Your task to perform on an android device: Open Chrome and go to the settings page Image 0: 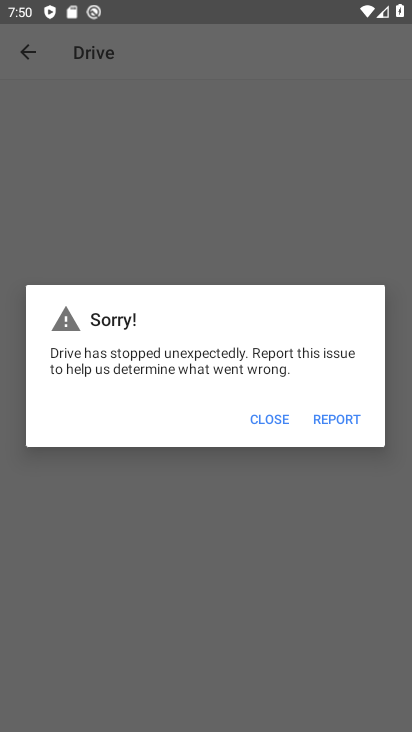
Step 0: press home button
Your task to perform on an android device: Open Chrome and go to the settings page Image 1: 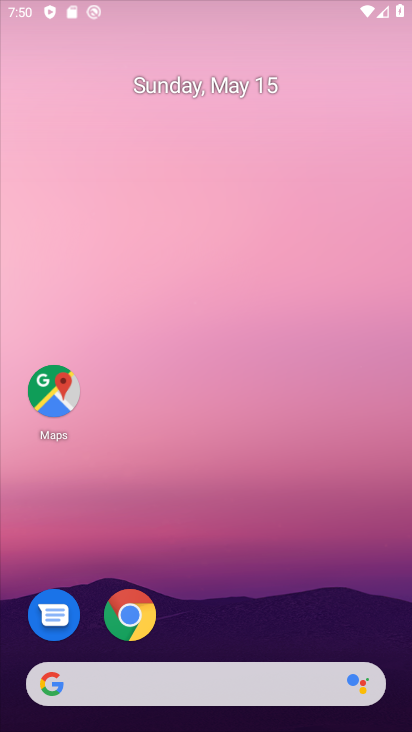
Step 1: drag from (244, 683) to (375, 182)
Your task to perform on an android device: Open Chrome and go to the settings page Image 2: 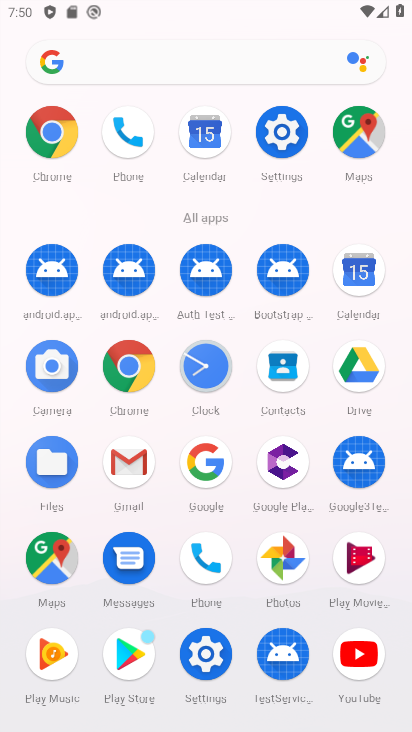
Step 2: click (37, 117)
Your task to perform on an android device: Open Chrome and go to the settings page Image 3: 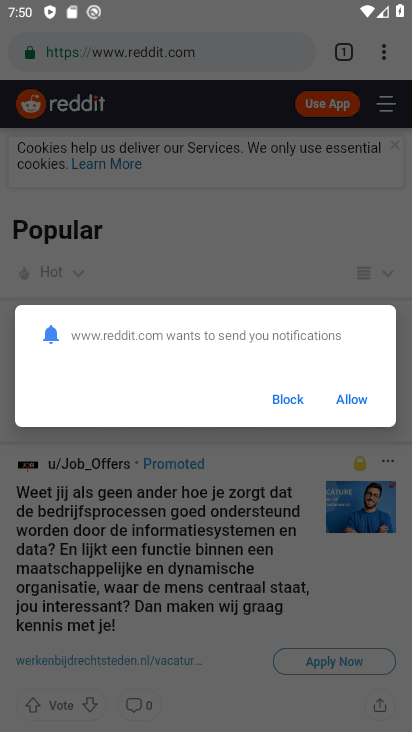
Step 3: click (309, 402)
Your task to perform on an android device: Open Chrome and go to the settings page Image 4: 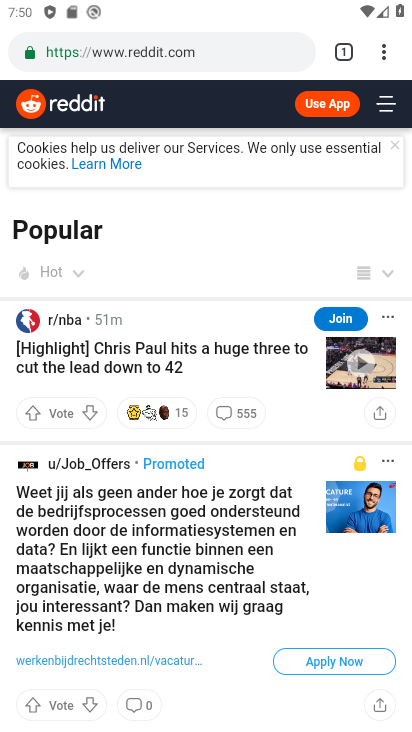
Step 4: click (382, 62)
Your task to perform on an android device: Open Chrome and go to the settings page Image 5: 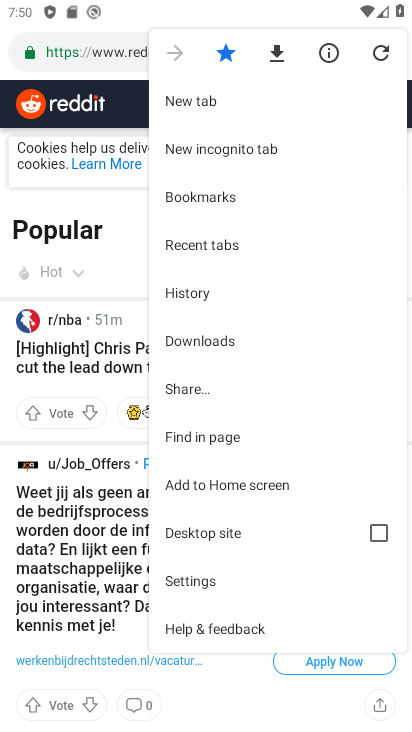
Step 5: click (217, 583)
Your task to perform on an android device: Open Chrome and go to the settings page Image 6: 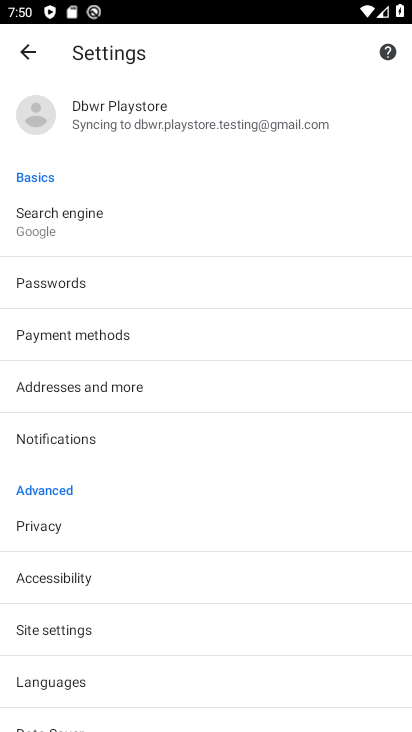
Step 6: task complete